Your task to perform on an android device: What's the weather today? Image 0: 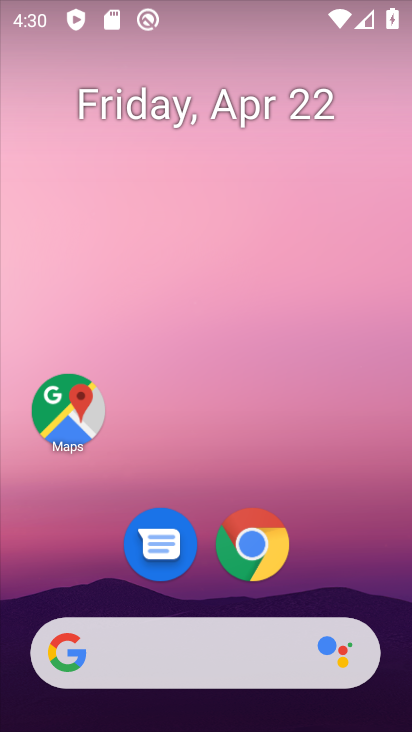
Step 0: drag from (208, 620) to (203, 306)
Your task to perform on an android device: What's the weather today? Image 1: 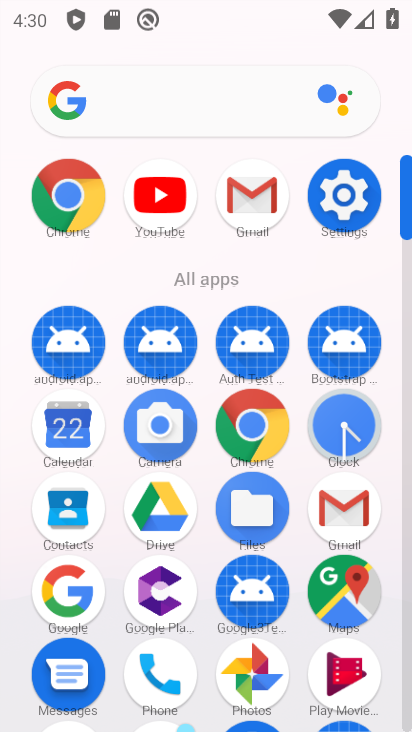
Step 1: click (76, 599)
Your task to perform on an android device: What's the weather today? Image 2: 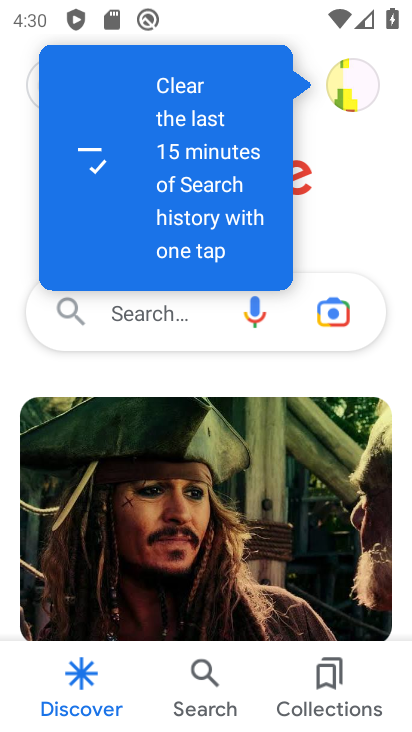
Step 2: click (99, 179)
Your task to perform on an android device: What's the weather today? Image 3: 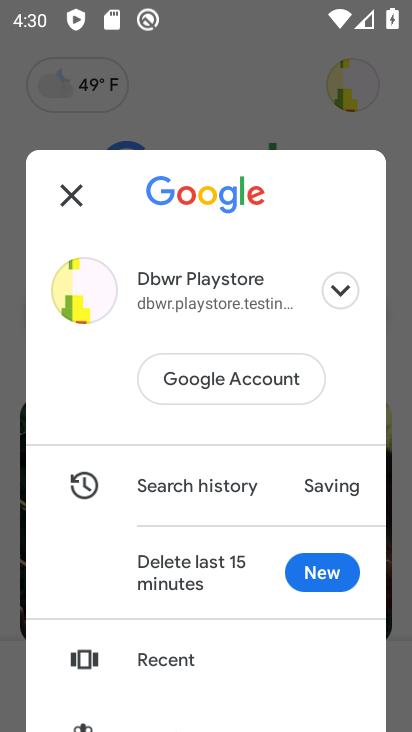
Step 3: click (76, 196)
Your task to perform on an android device: What's the weather today? Image 4: 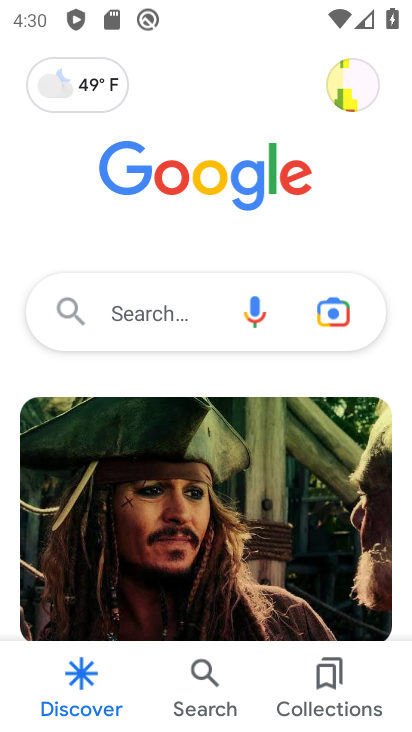
Step 4: click (97, 96)
Your task to perform on an android device: What's the weather today? Image 5: 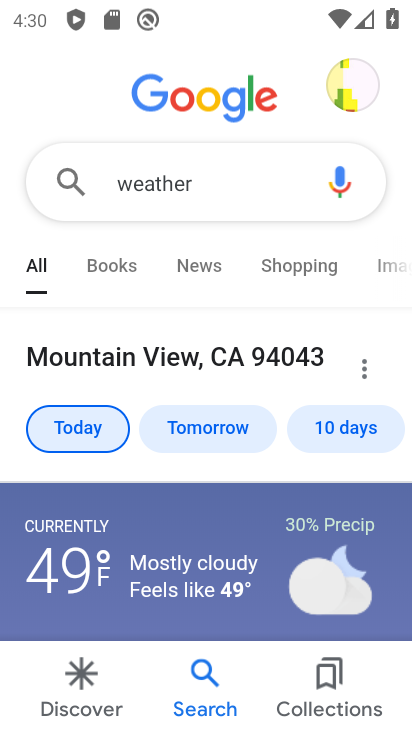
Step 5: task complete